Your task to perform on an android device: empty trash in google photos Image 0: 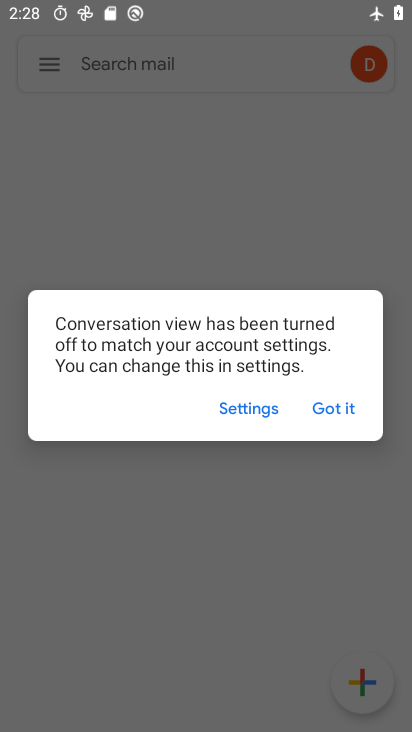
Step 0: press home button
Your task to perform on an android device: empty trash in google photos Image 1: 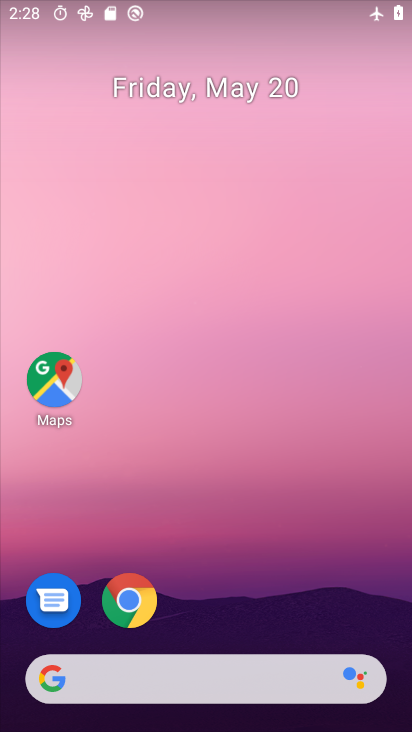
Step 1: drag from (282, 580) to (144, 0)
Your task to perform on an android device: empty trash in google photos Image 2: 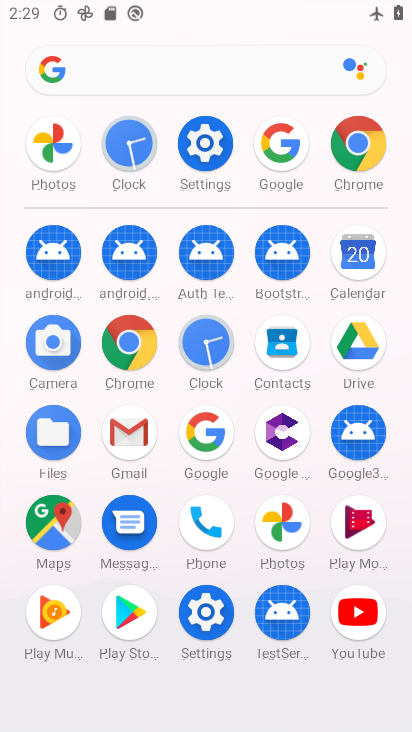
Step 2: click (57, 146)
Your task to perform on an android device: empty trash in google photos Image 3: 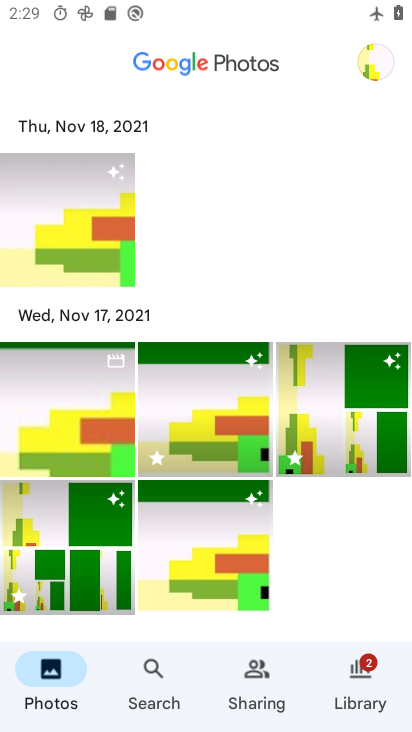
Step 3: click (380, 66)
Your task to perform on an android device: empty trash in google photos Image 4: 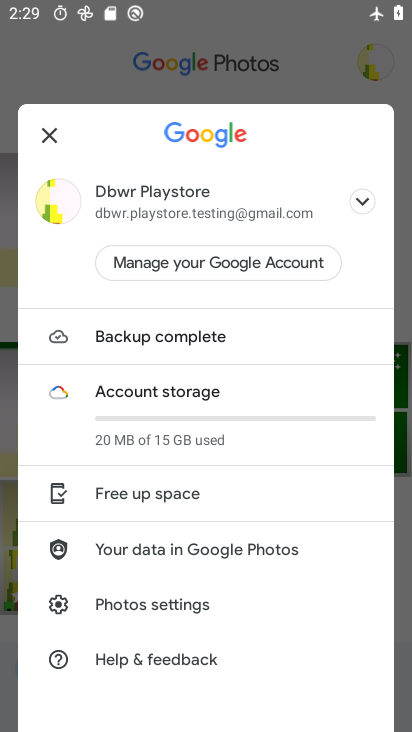
Step 4: click (243, 81)
Your task to perform on an android device: empty trash in google photos Image 5: 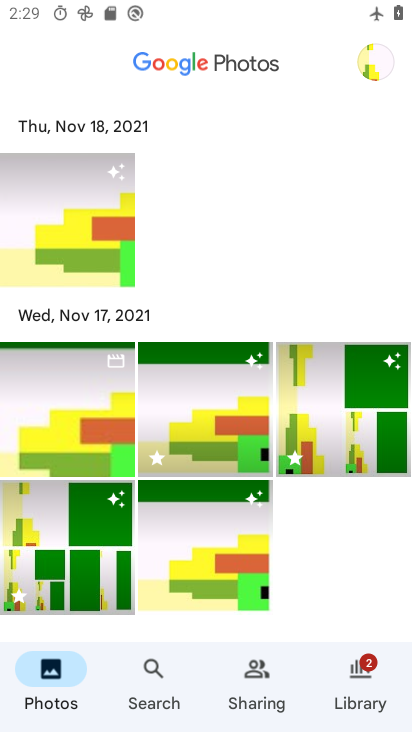
Step 5: click (374, 681)
Your task to perform on an android device: empty trash in google photos Image 6: 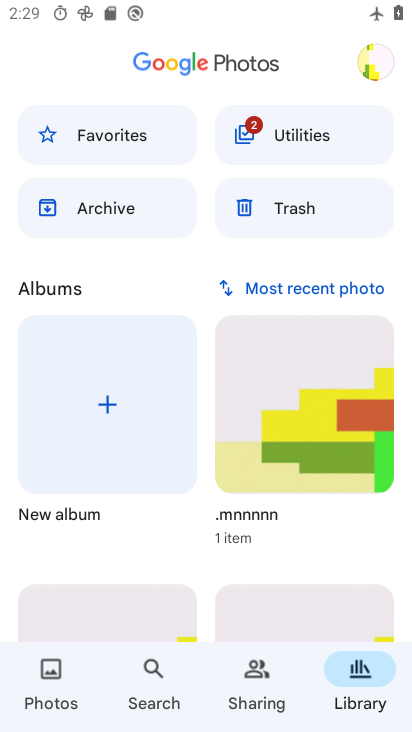
Step 6: click (302, 211)
Your task to perform on an android device: empty trash in google photos Image 7: 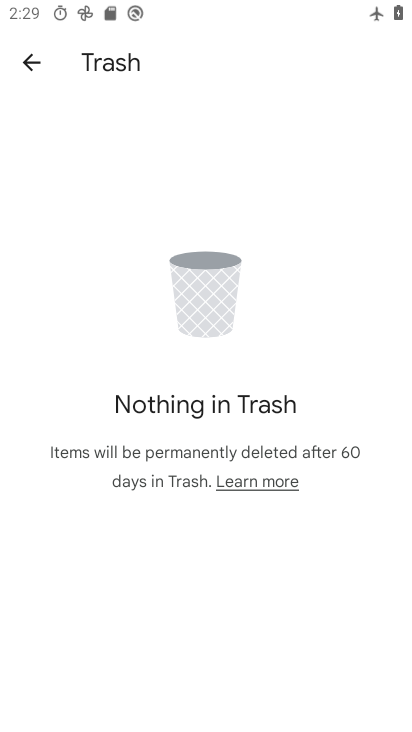
Step 7: task complete